Your task to perform on an android device: open the mobile data screen to see how much data has been used Image 0: 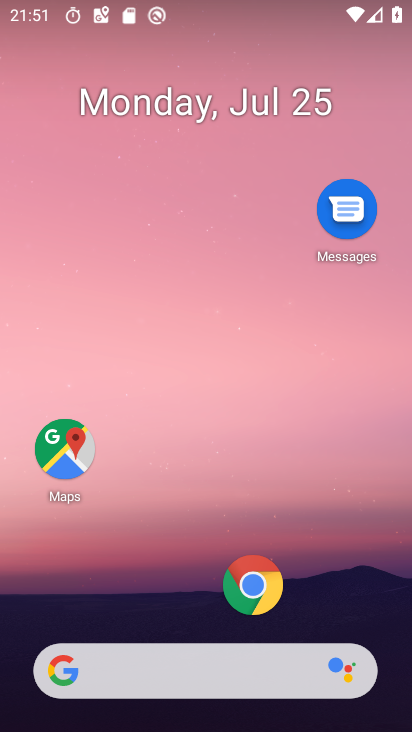
Step 0: drag from (244, 674) to (319, 2)
Your task to perform on an android device: open the mobile data screen to see how much data has been used Image 1: 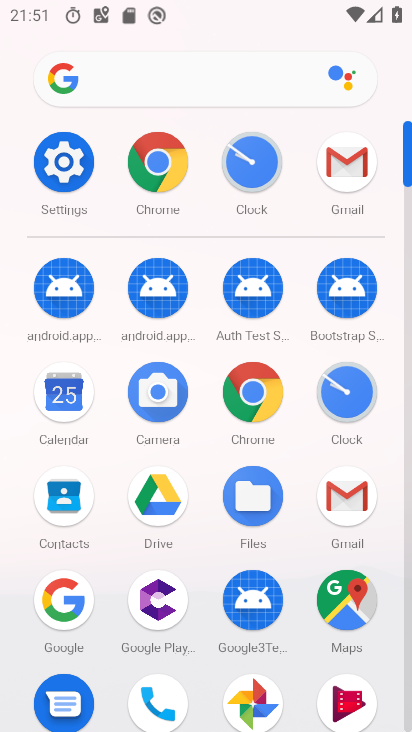
Step 1: click (76, 155)
Your task to perform on an android device: open the mobile data screen to see how much data has been used Image 2: 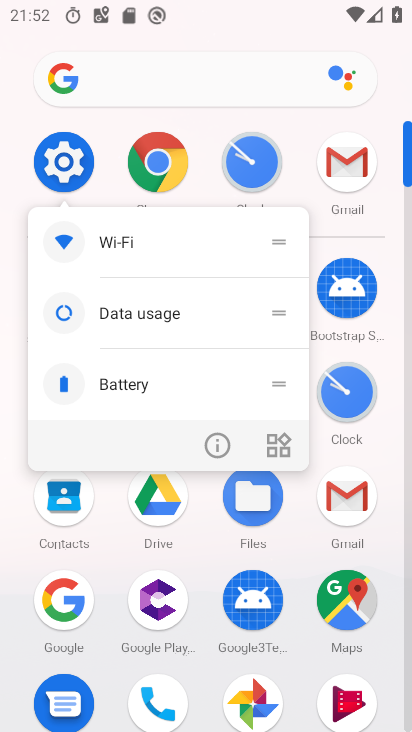
Step 2: click (57, 176)
Your task to perform on an android device: open the mobile data screen to see how much data has been used Image 3: 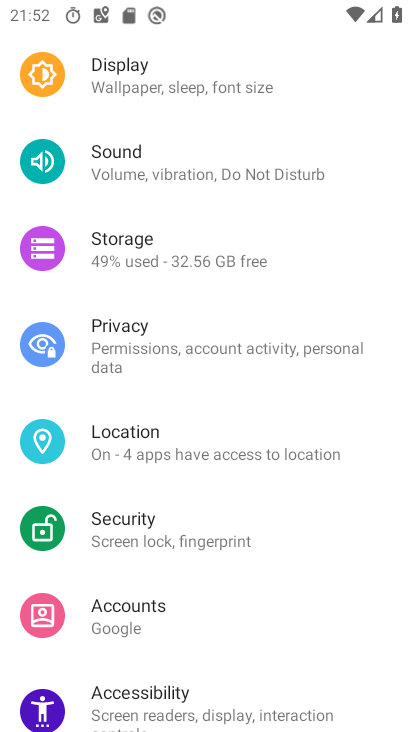
Step 3: drag from (304, 120) to (303, 582)
Your task to perform on an android device: open the mobile data screen to see how much data has been used Image 4: 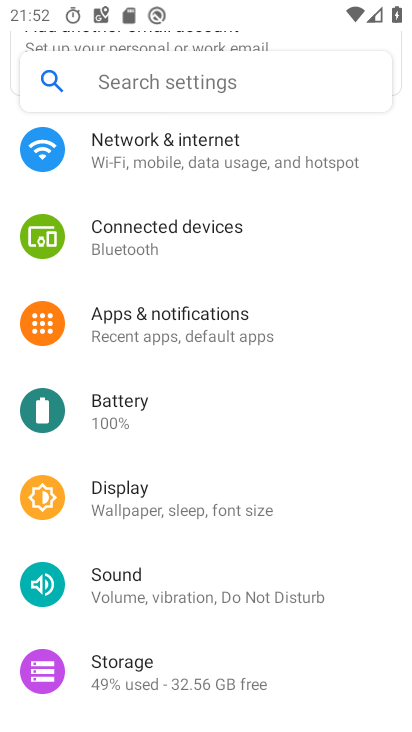
Step 4: click (204, 152)
Your task to perform on an android device: open the mobile data screen to see how much data has been used Image 5: 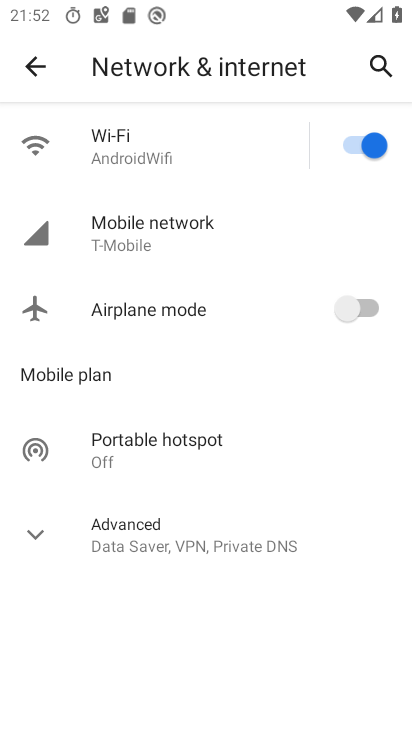
Step 5: click (142, 220)
Your task to perform on an android device: open the mobile data screen to see how much data has been used Image 6: 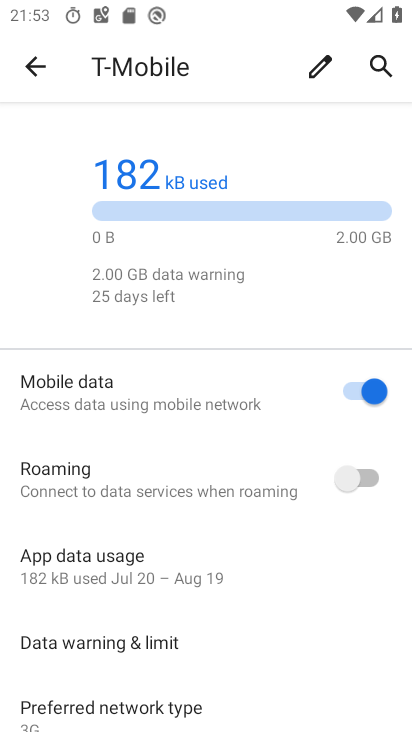
Step 6: task complete